Your task to perform on an android device: find snoozed emails in the gmail app Image 0: 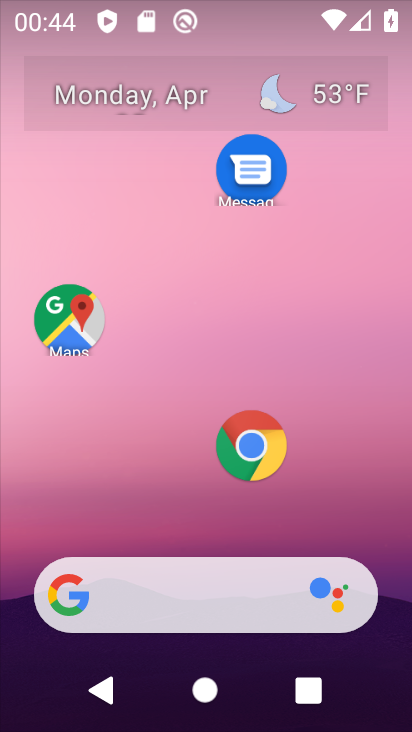
Step 0: click (279, 28)
Your task to perform on an android device: find snoozed emails in the gmail app Image 1: 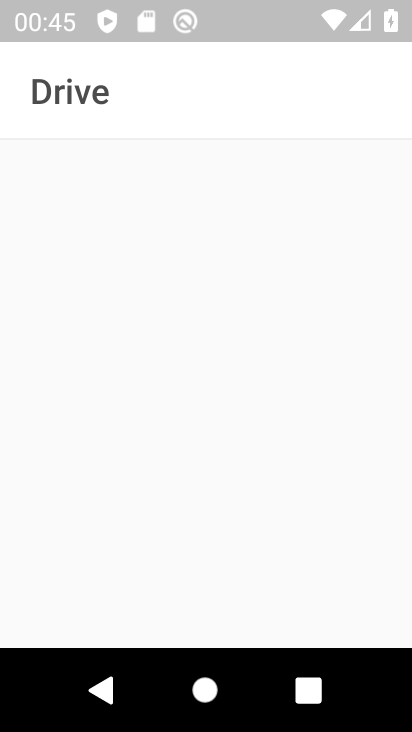
Step 1: press home button
Your task to perform on an android device: find snoozed emails in the gmail app Image 2: 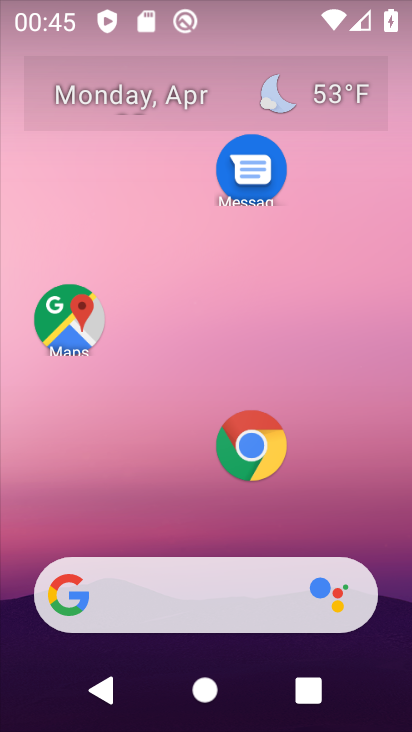
Step 2: drag from (177, 415) to (223, 0)
Your task to perform on an android device: find snoozed emails in the gmail app Image 3: 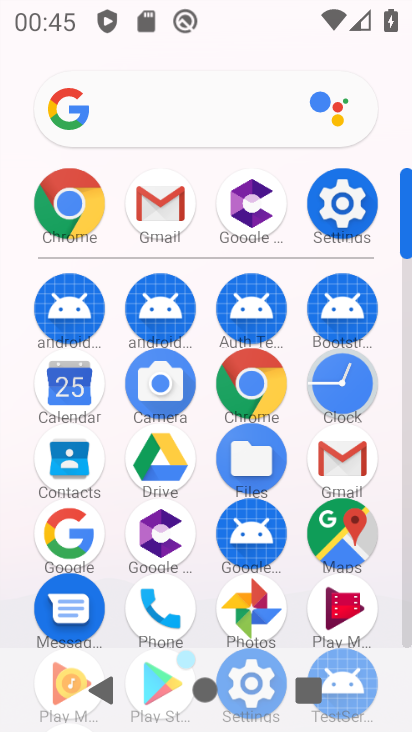
Step 3: click (350, 455)
Your task to perform on an android device: find snoozed emails in the gmail app Image 4: 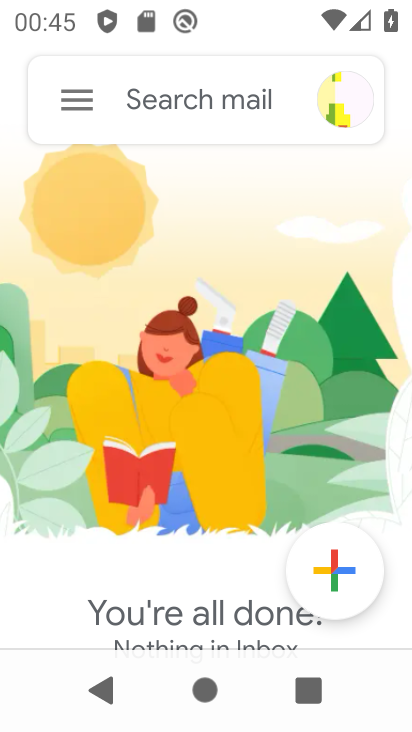
Step 4: click (84, 106)
Your task to perform on an android device: find snoozed emails in the gmail app Image 5: 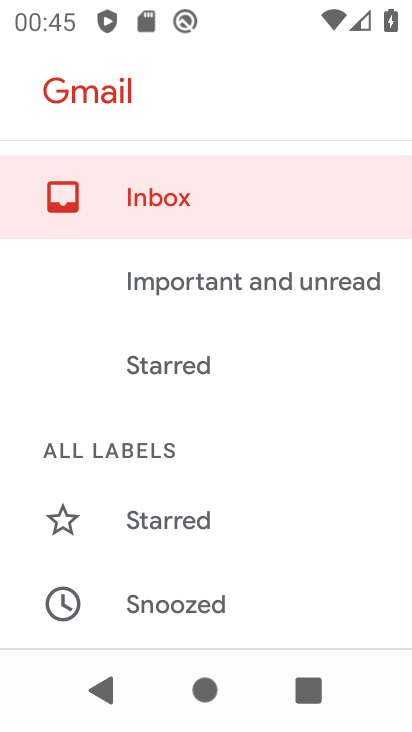
Step 5: drag from (150, 545) to (235, 127)
Your task to perform on an android device: find snoozed emails in the gmail app Image 6: 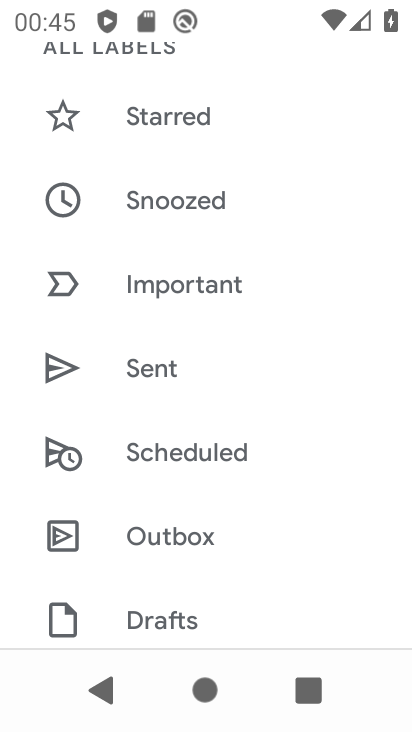
Step 6: drag from (185, 482) to (252, 88)
Your task to perform on an android device: find snoozed emails in the gmail app Image 7: 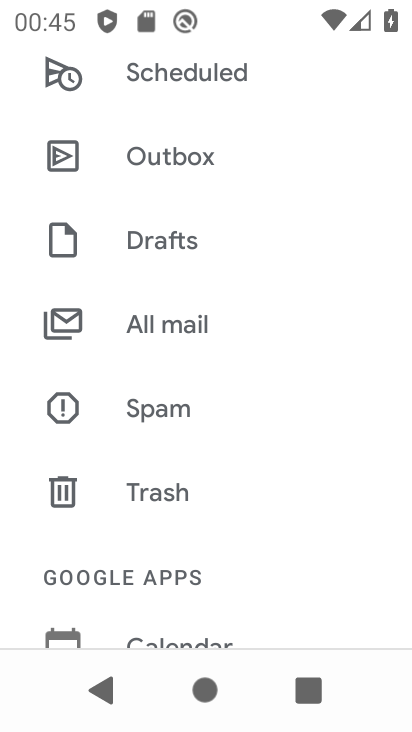
Step 7: drag from (209, 455) to (240, 193)
Your task to perform on an android device: find snoozed emails in the gmail app Image 8: 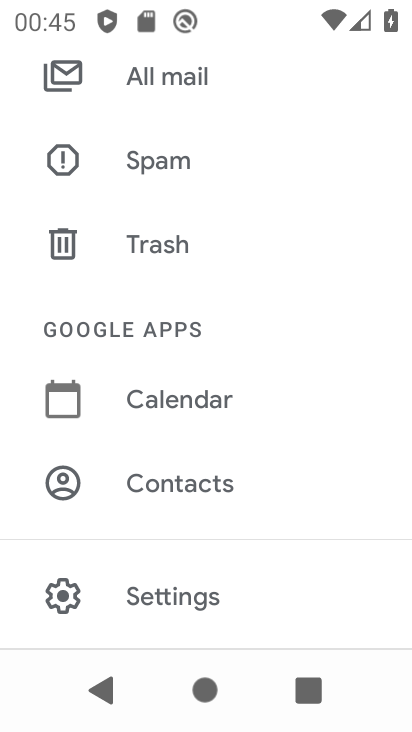
Step 8: click (151, 597)
Your task to perform on an android device: find snoozed emails in the gmail app Image 9: 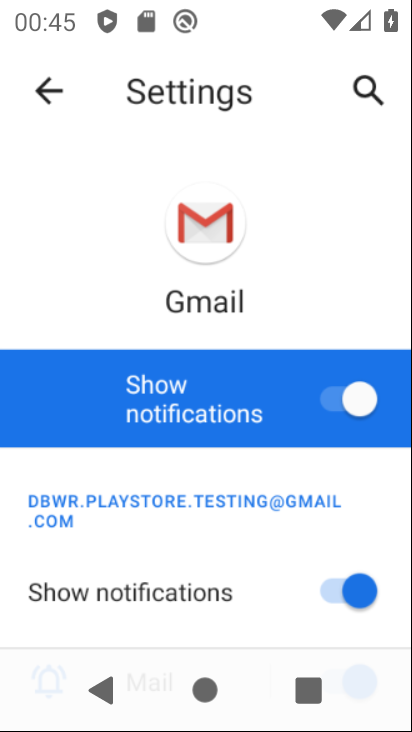
Step 9: click (59, 100)
Your task to perform on an android device: find snoozed emails in the gmail app Image 10: 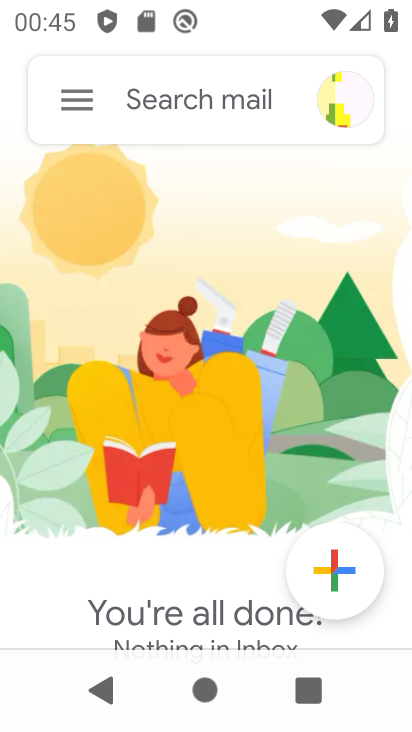
Step 10: click (57, 99)
Your task to perform on an android device: find snoozed emails in the gmail app Image 11: 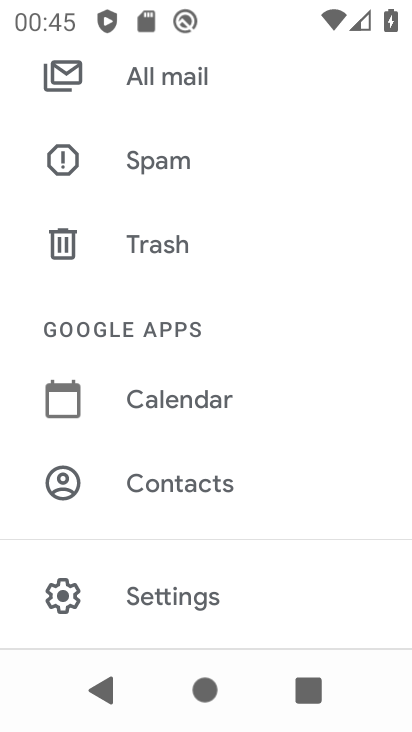
Step 11: drag from (168, 247) to (188, 622)
Your task to perform on an android device: find snoozed emails in the gmail app Image 12: 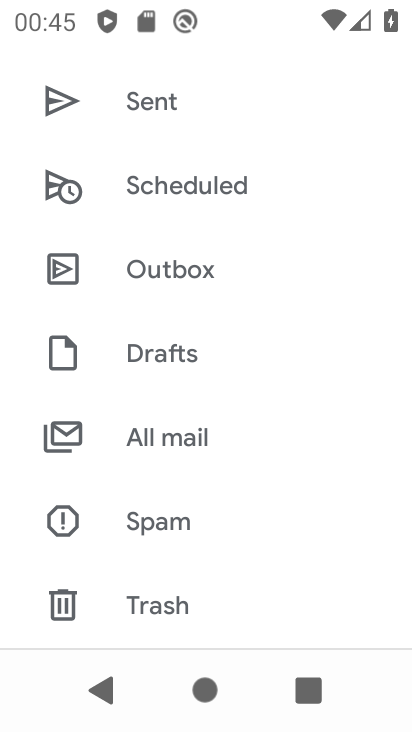
Step 12: drag from (180, 210) to (181, 549)
Your task to perform on an android device: find snoozed emails in the gmail app Image 13: 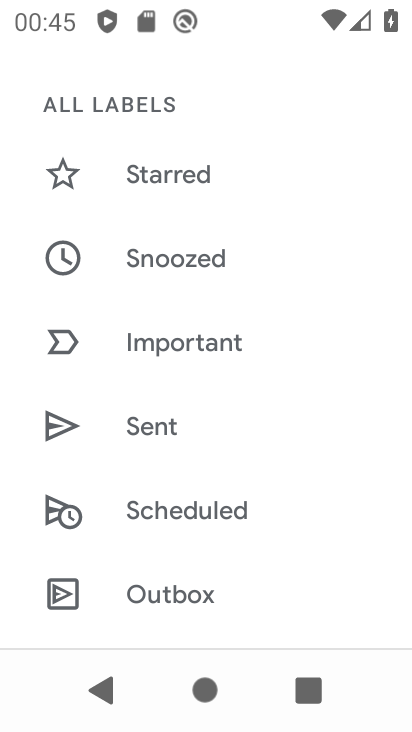
Step 13: click (155, 254)
Your task to perform on an android device: find snoozed emails in the gmail app Image 14: 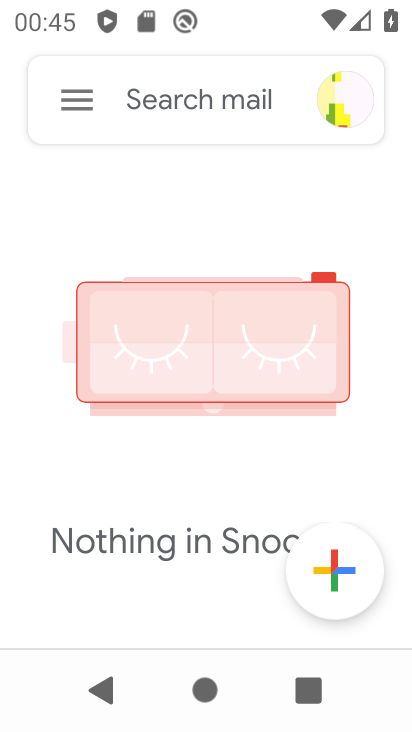
Step 14: task complete